Your task to perform on an android device: open app "Spotify" (install if not already installed) Image 0: 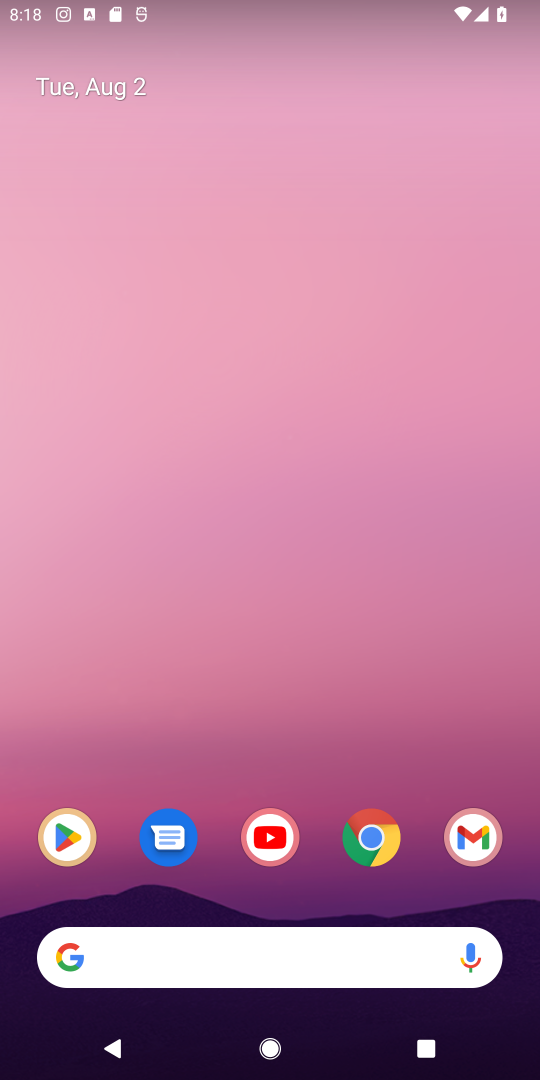
Step 0: click (76, 842)
Your task to perform on an android device: open app "Spotify" (install if not already installed) Image 1: 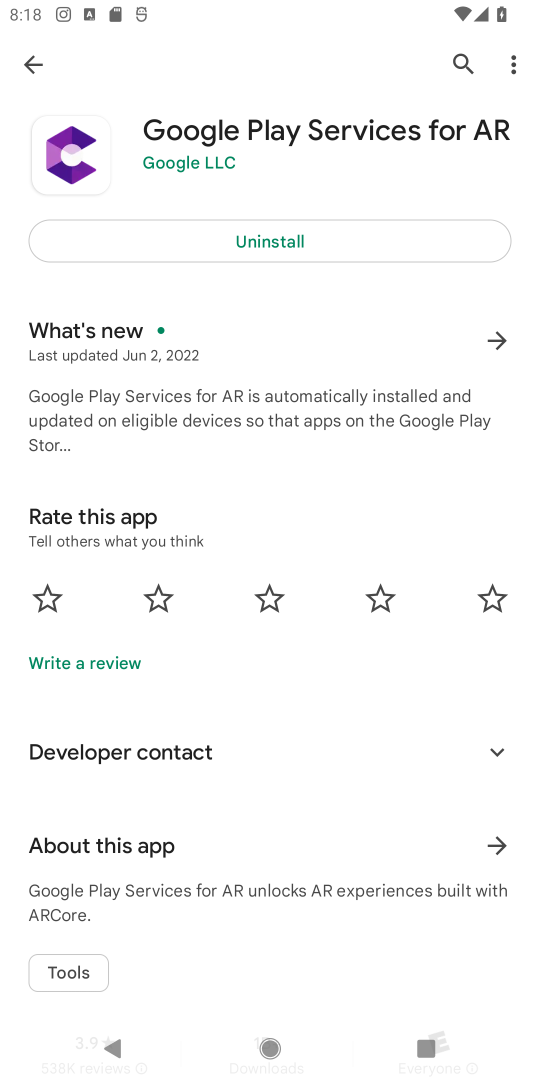
Step 1: click (454, 64)
Your task to perform on an android device: open app "Spotify" (install if not already installed) Image 2: 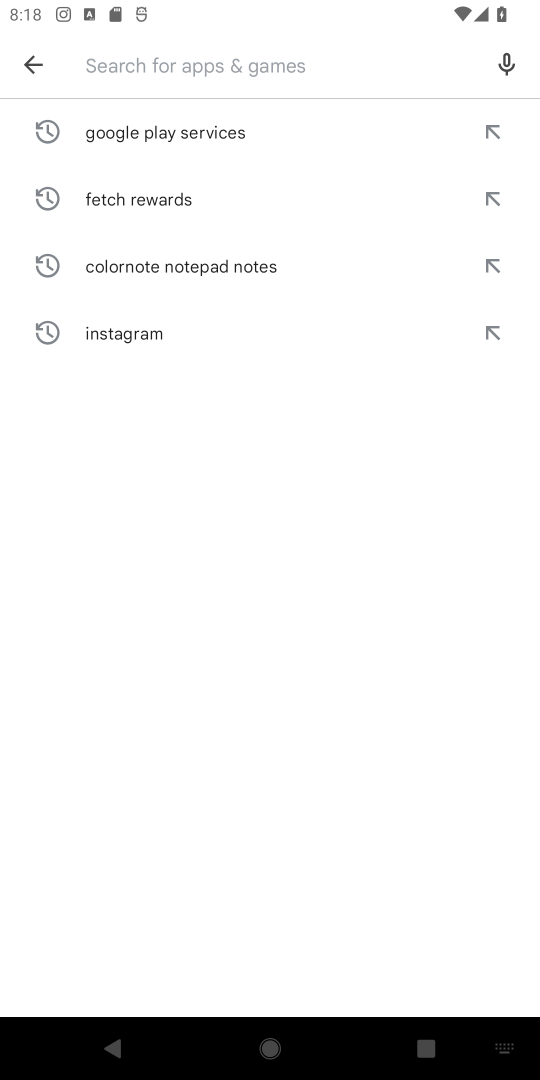
Step 2: type "Spotify"
Your task to perform on an android device: open app "Spotify" (install if not already installed) Image 3: 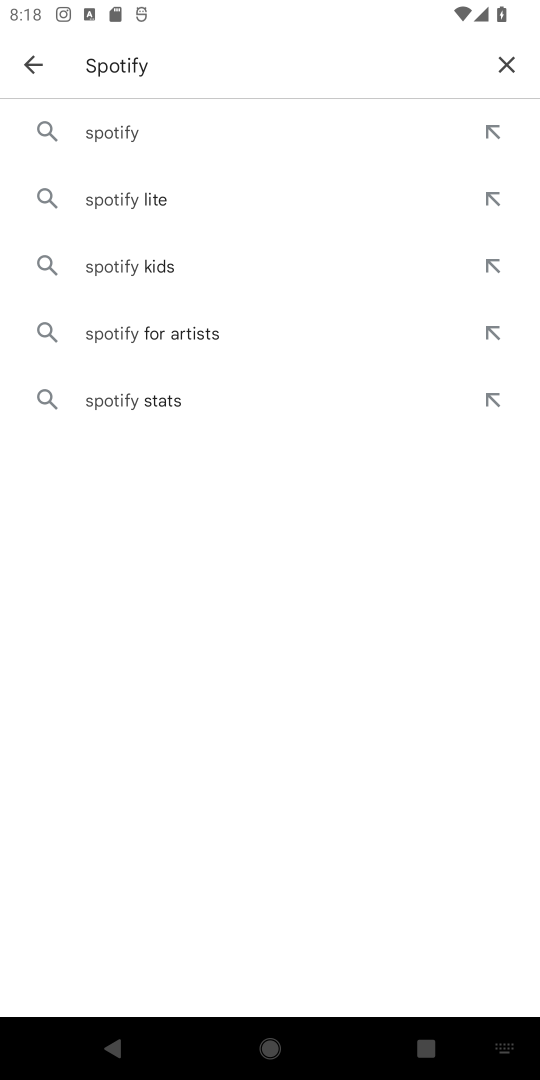
Step 3: click (120, 138)
Your task to perform on an android device: open app "Spotify" (install if not already installed) Image 4: 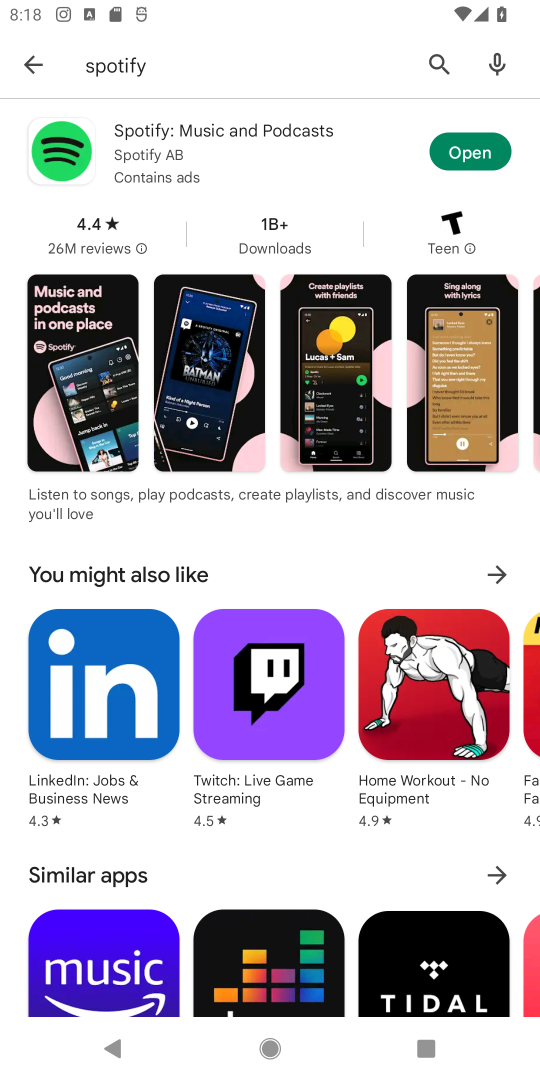
Step 4: click (466, 152)
Your task to perform on an android device: open app "Spotify" (install if not already installed) Image 5: 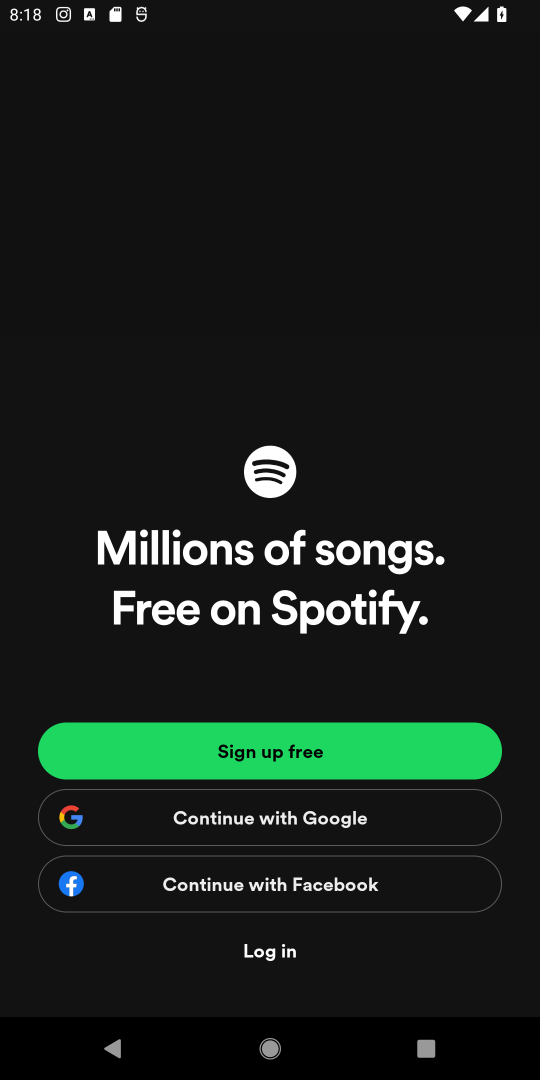
Step 5: task complete